Your task to perform on an android device: Go to notification settings Image 0: 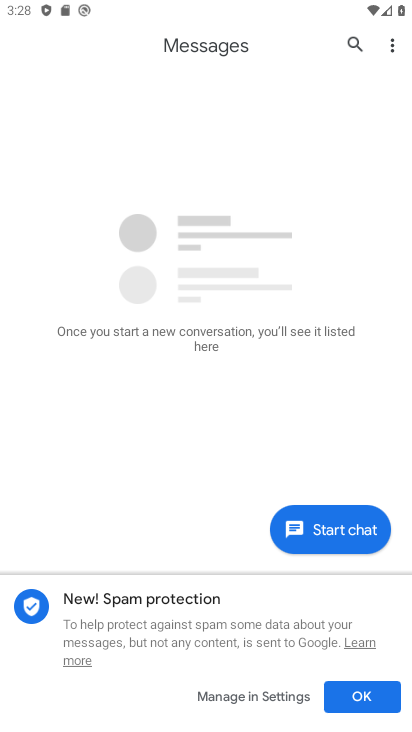
Step 0: press home button
Your task to perform on an android device: Go to notification settings Image 1: 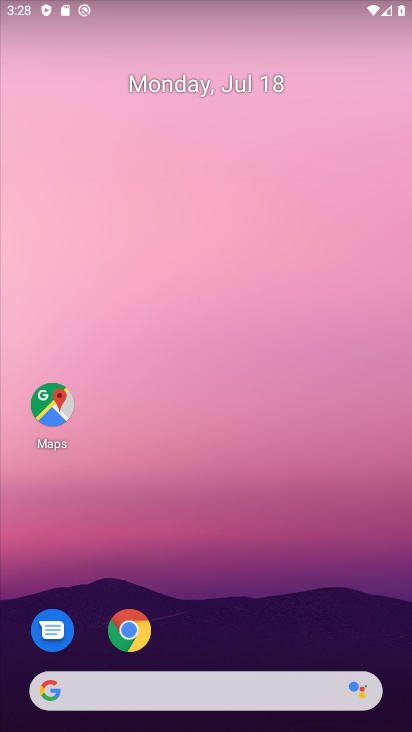
Step 1: drag from (271, 645) to (242, 125)
Your task to perform on an android device: Go to notification settings Image 2: 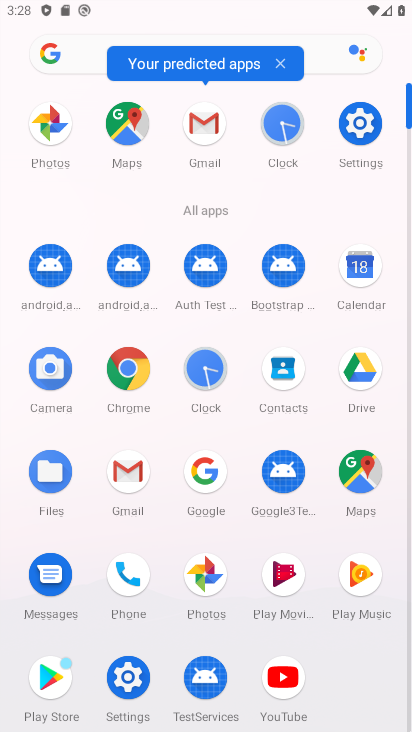
Step 2: click (367, 129)
Your task to perform on an android device: Go to notification settings Image 3: 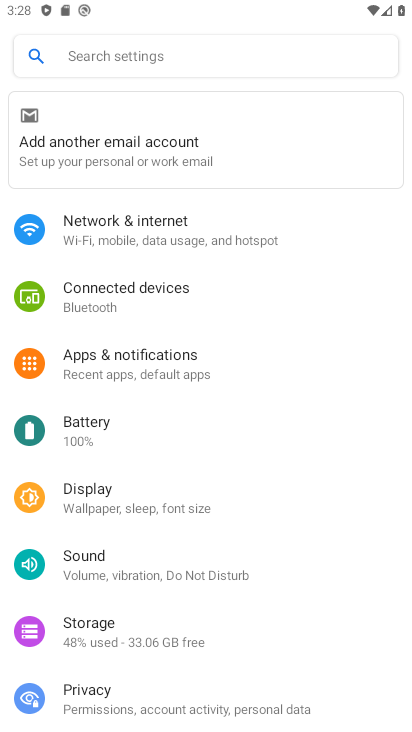
Step 3: click (214, 353)
Your task to perform on an android device: Go to notification settings Image 4: 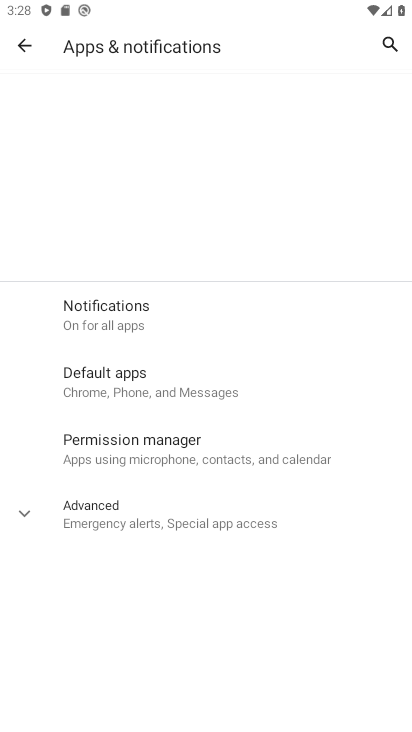
Step 4: click (181, 320)
Your task to perform on an android device: Go to notification settings Image 5: 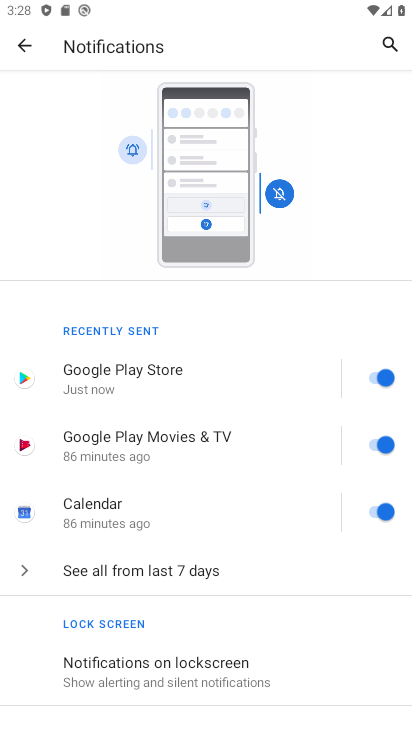
Step 5: task complete